Your task to perform on an android device: Open my contact list Image 0: 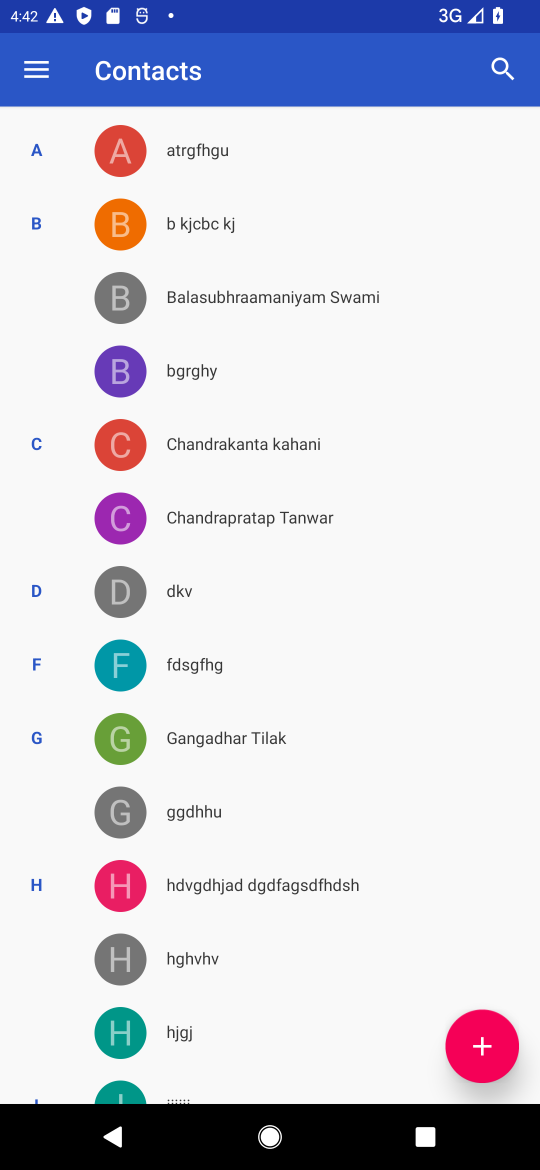
Step 0: task complete